Your task to perform on an android device: change the clock display to show seconds Image 0: 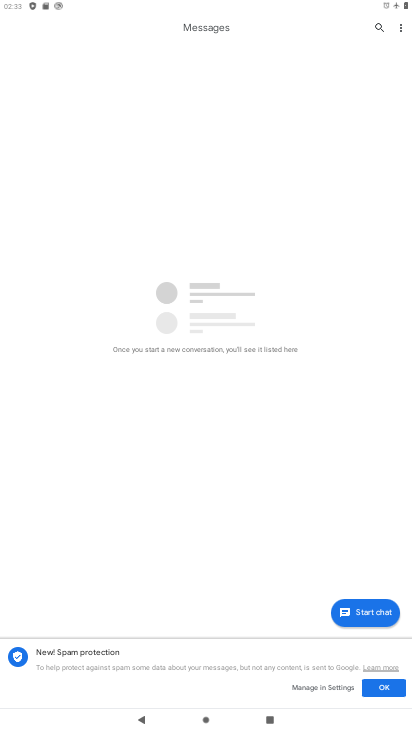
Step 0: press home button
Your task to perform on an android device: change the clock display to show seconds Image 1: 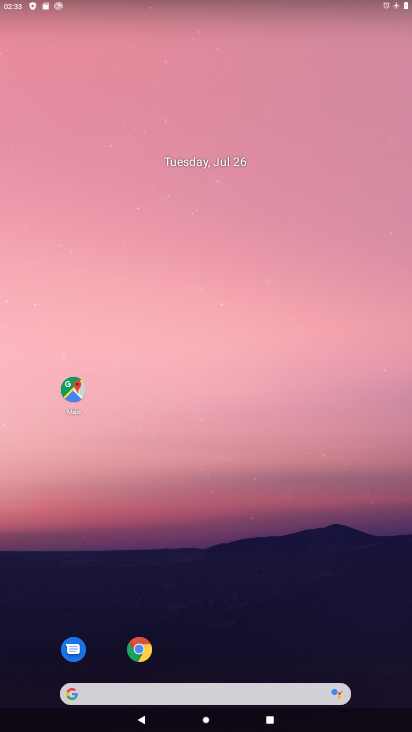
Step 1: drag from (208, 689) to (409, 42)
Your task to perform on an android device: change the clock display to show seconds Image 2: 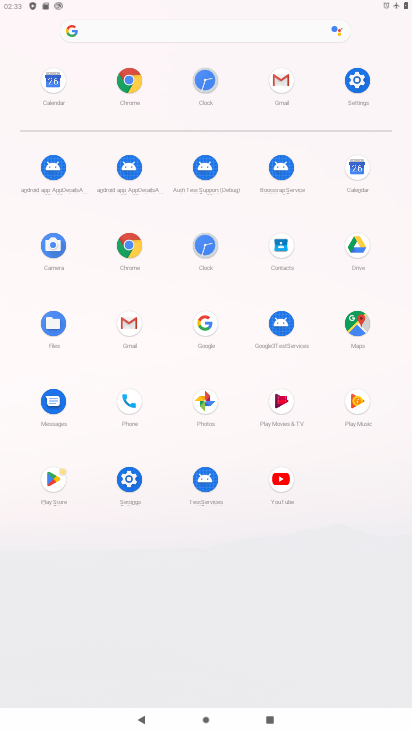
Step 2: click (205, 80)
Your task to perform on an android device: change the clock display to show seconds Image 3: 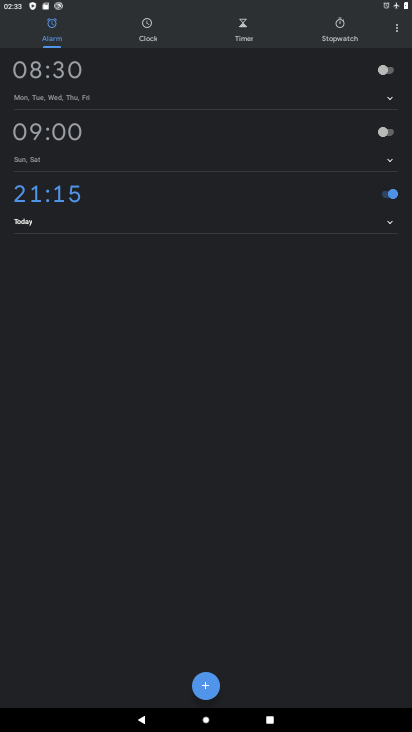
Step 3: click (399, 30)
Your task to perform on an android device: change the clock display to show seconds Image 4: 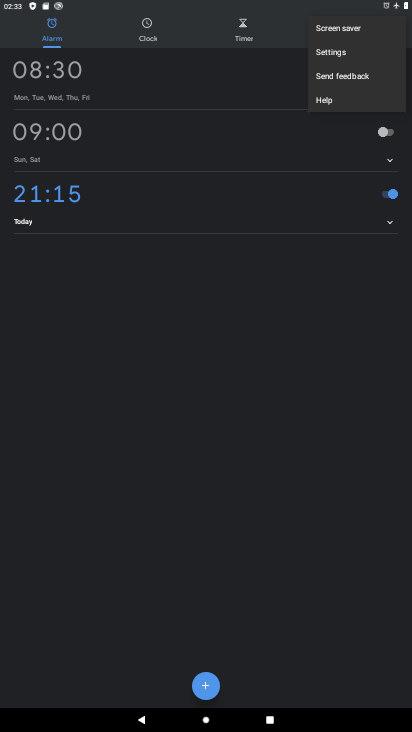
Step 4: click (332, 50)
Your task to perform on an android device: change the clock display to show seconds Image 5: 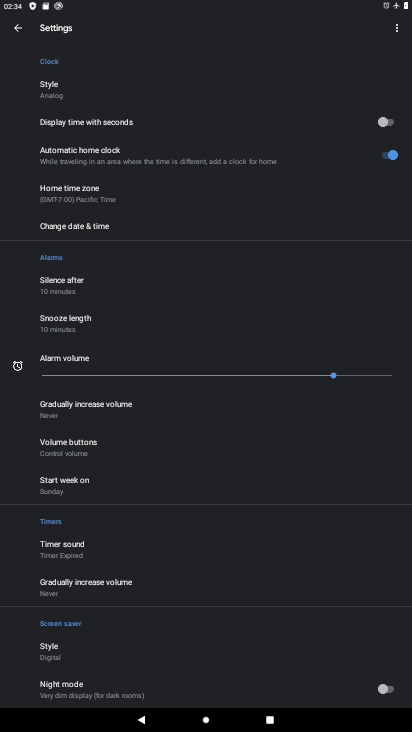
Step 5: click (385, 123)
Your task to perform on an android device: change the clock display to show seconds Image 6: 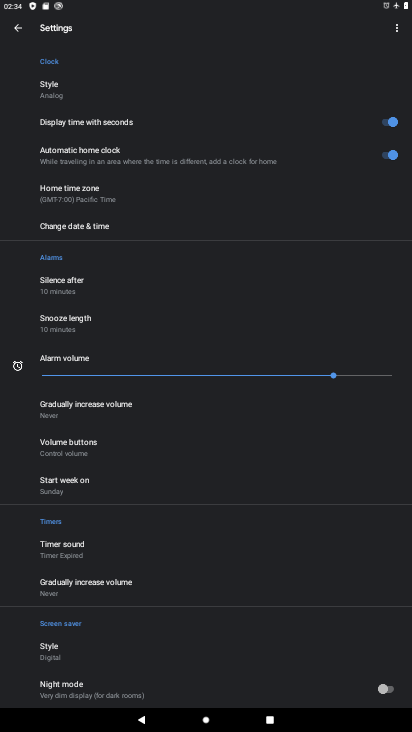
Step 6: task complete